Your task to perform on an android device: Search for "acer predator" on costco, select the first entry, add it to the cart, then select checkout. Image 0: 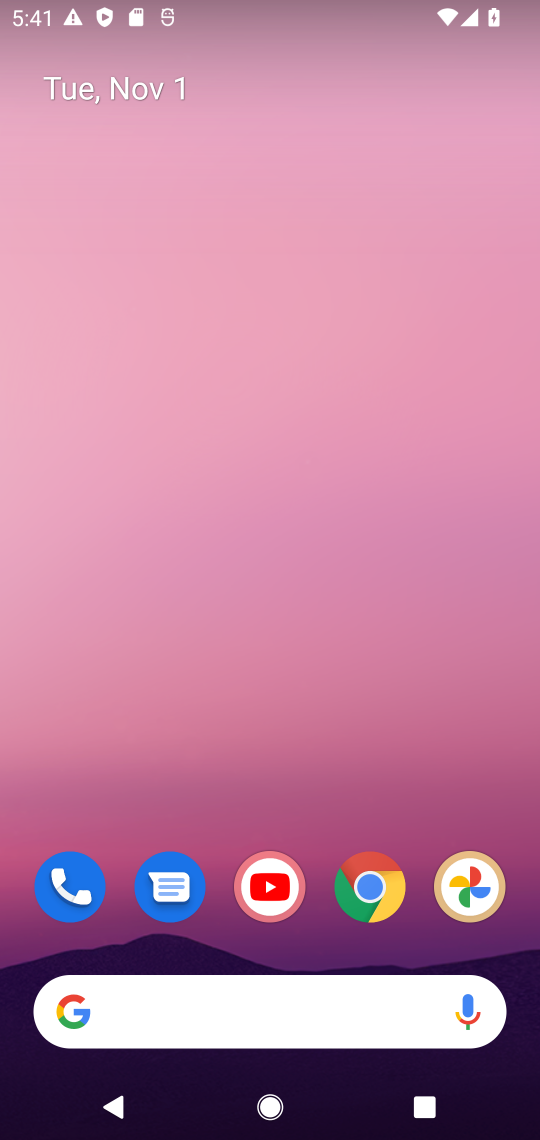
Step 0: press home button
Your task to perform on an android device: Search for "acer predator" on costco, select the first entry, add it to the cart, then select checkout. Image 1: 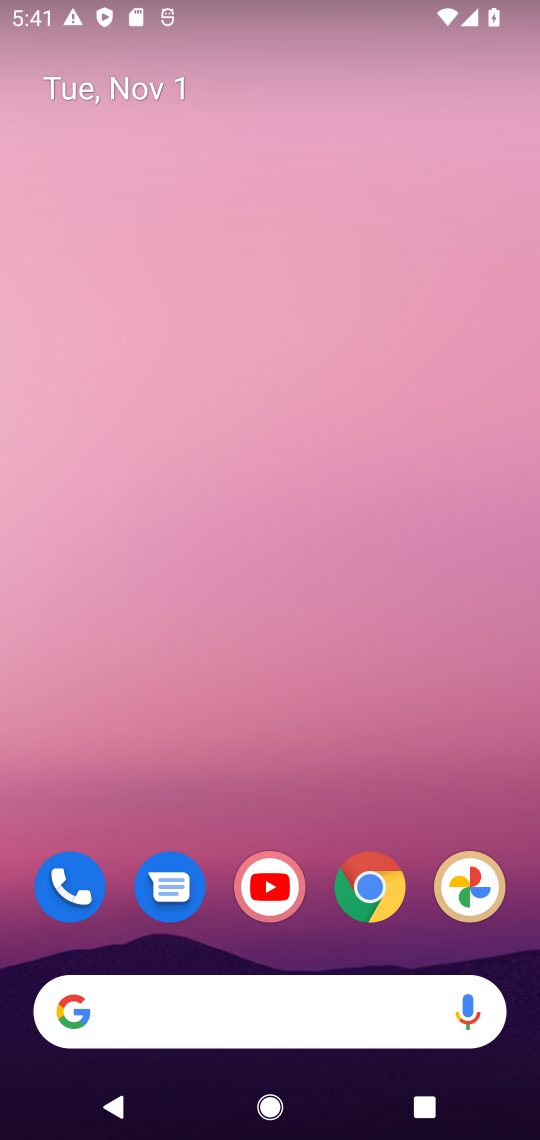
Step 1: drag from (320, 812) to (332, 31)
Your task to perform on an android device: Search for "acer predator" on costco, select the first entry, add it to the cart, then select checkout. Image 2: 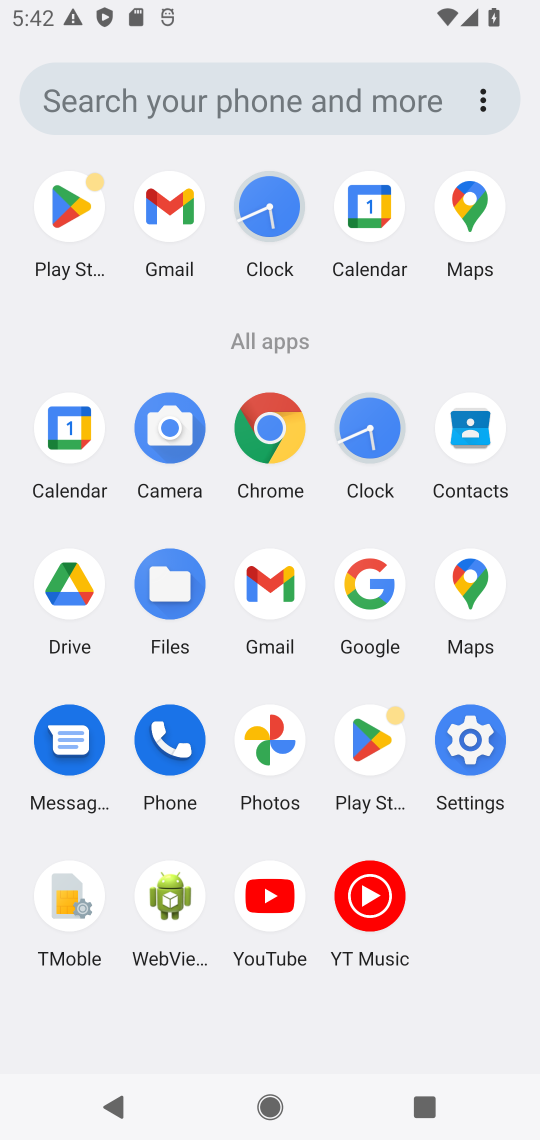
Step 2: click (274, 419)
Your task to perform on an android device: Search for "acer predator" on costco, select the first entry, add it to the cart, then select checkout. Image 3: 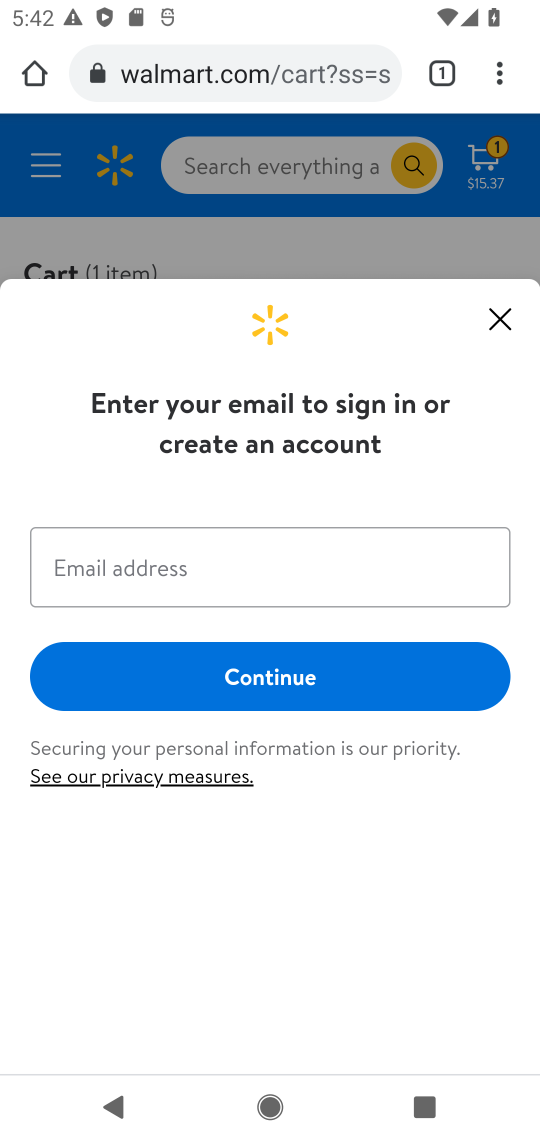
Step 3: click (496, 316)
Your task to perform on an android device: Search for "acer predator" on costco, select the first entry, add it to the cart, then select checkout. Image 4: 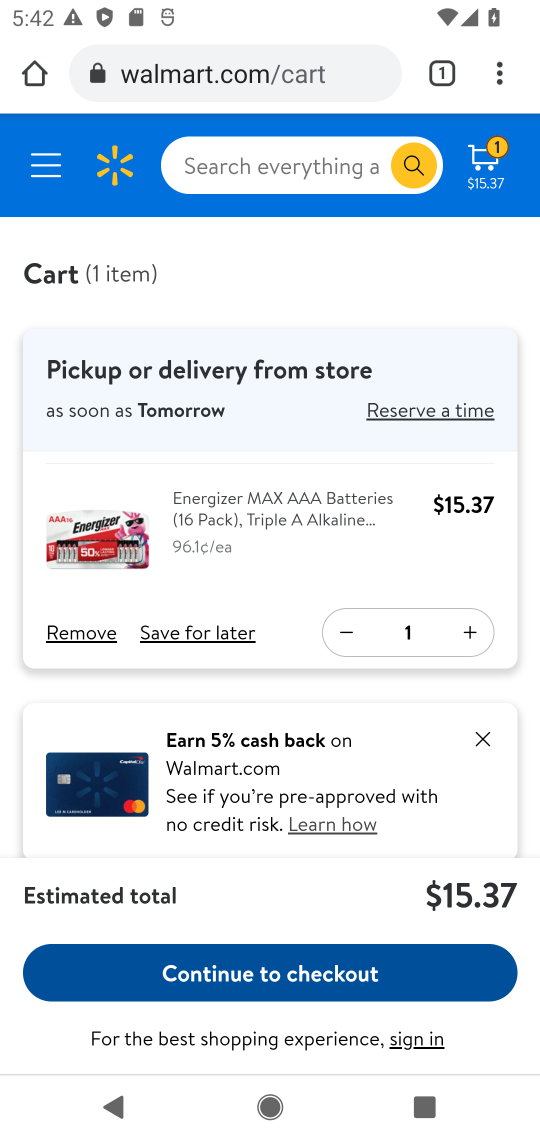
Step 4: click (197, 65)
Your task to perform on an android device: Search for "acer predator" on costco, select the first entry, add it to the cart, then select checkout. Image 5: 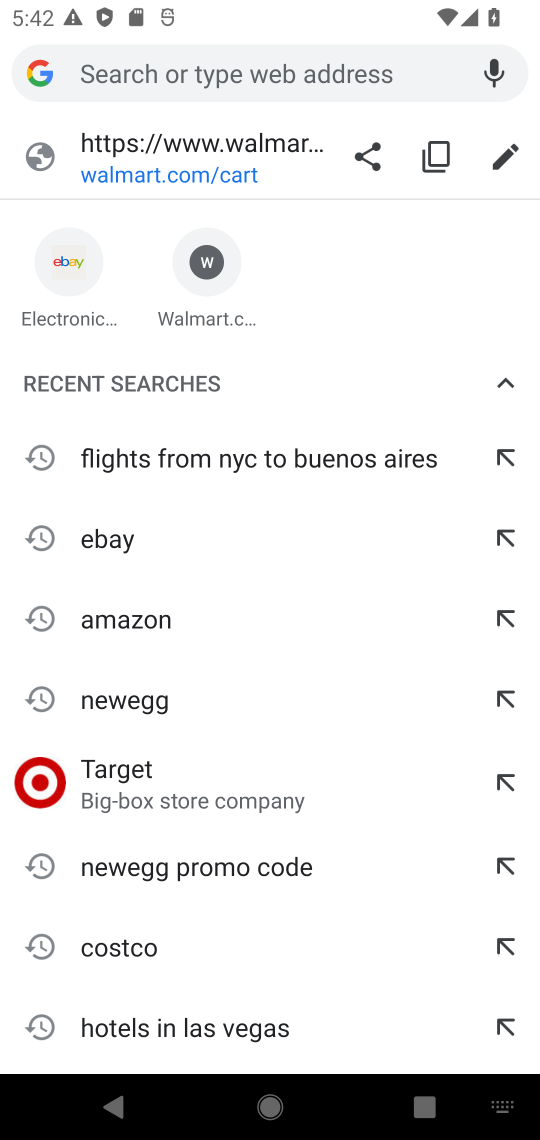
Step 5: type "costco"
Your task to perform on an android device: Search for "acer predator" on costco, select the first entry, add it to the cart, then select checkout. Image 6: 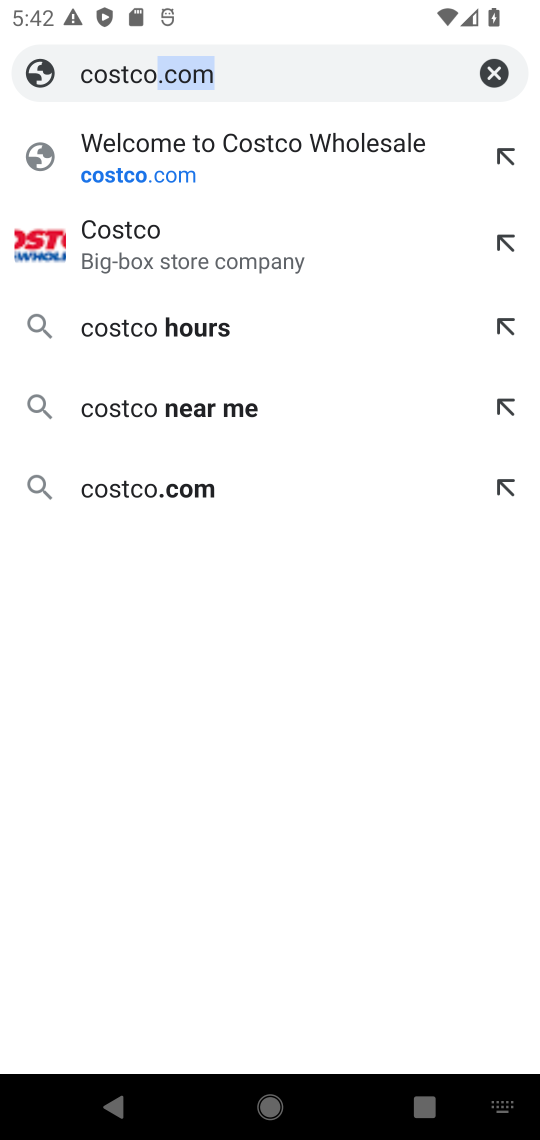
Step 6: click (217, 155)
Your task to perform on an android device: Search for "acer predator" on costco, select the first entry, add it to the cart, then select checkout. Image 7: 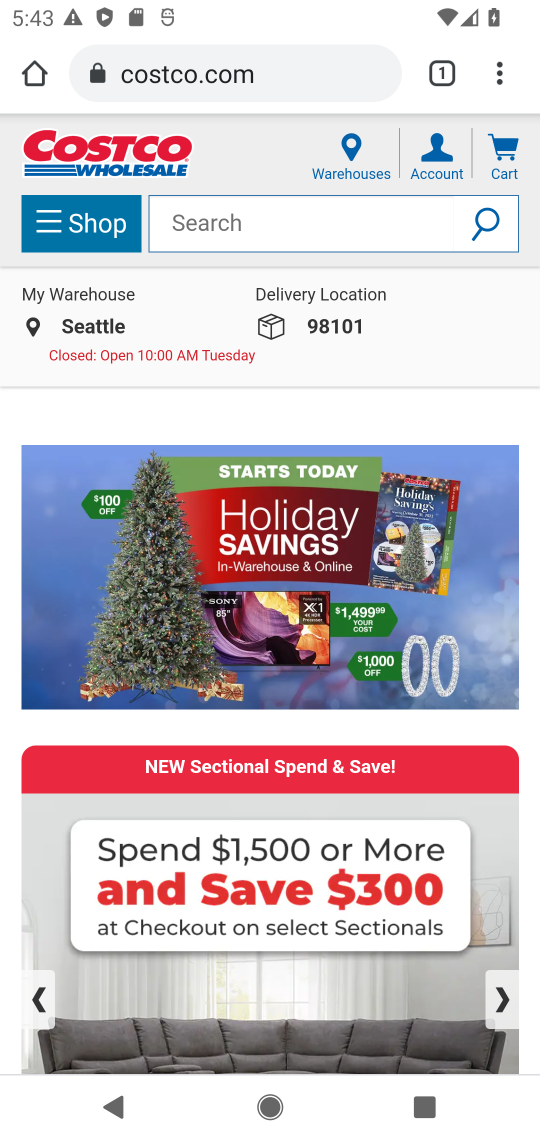
Step 7: click (207, 218)
Your task to perform on an android device: Search for "acer predator" on costco, select the first entry, add it to the cart, then select checkout. Image 8: 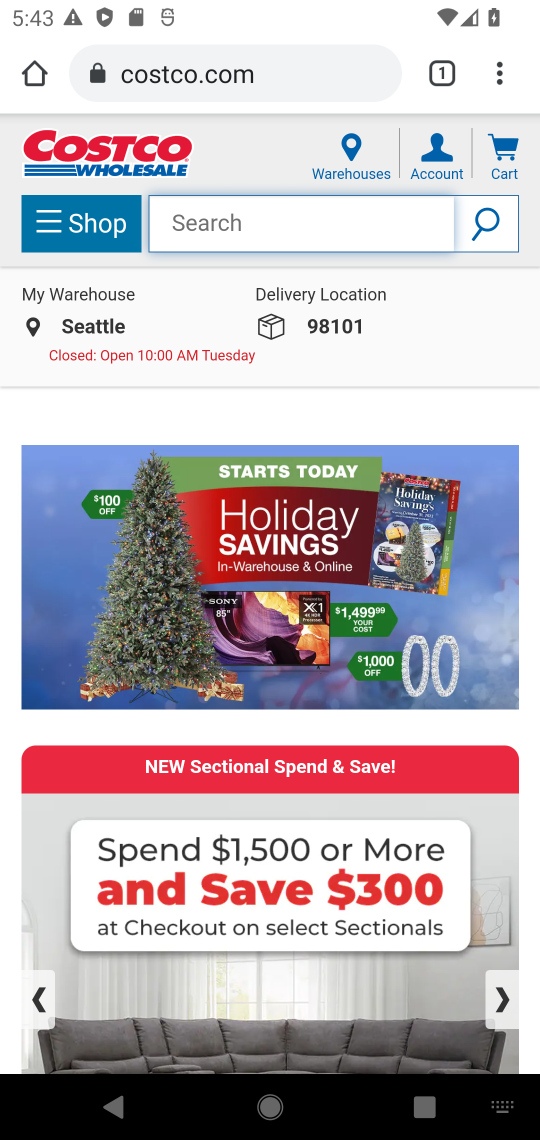
Step 8: type "acer predator"
Your task to perform on an android device: Search for "acer predator" on costco, select the first entry, add it to the cart, then select checkout. Image 9: 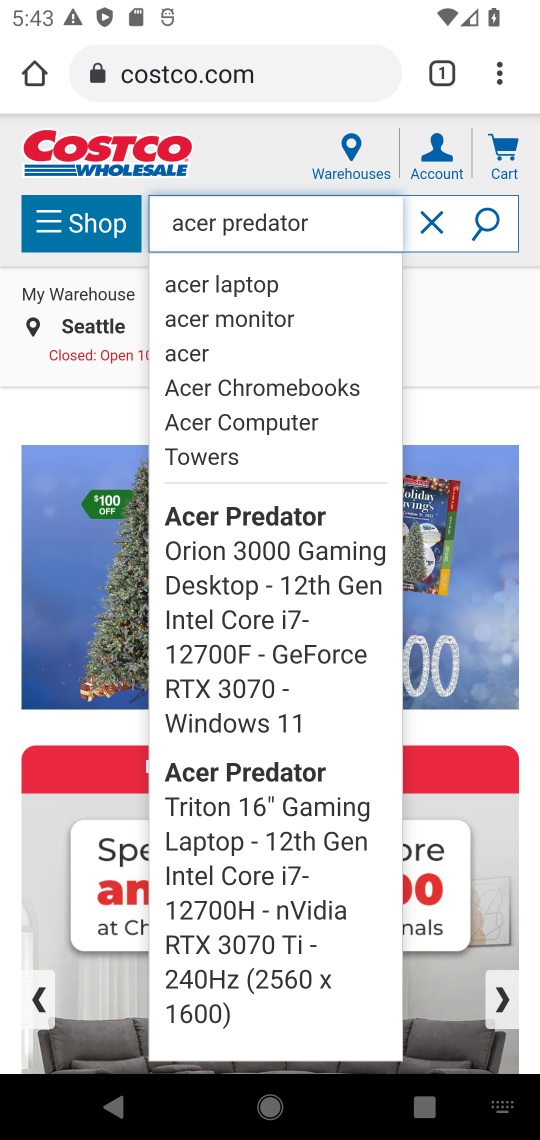
Step 9: click (238, 564)
Your task to perform on an android device: Search for "acer predator" on costco, select the first entry, add it to the cart, then select checkout. Image 10: 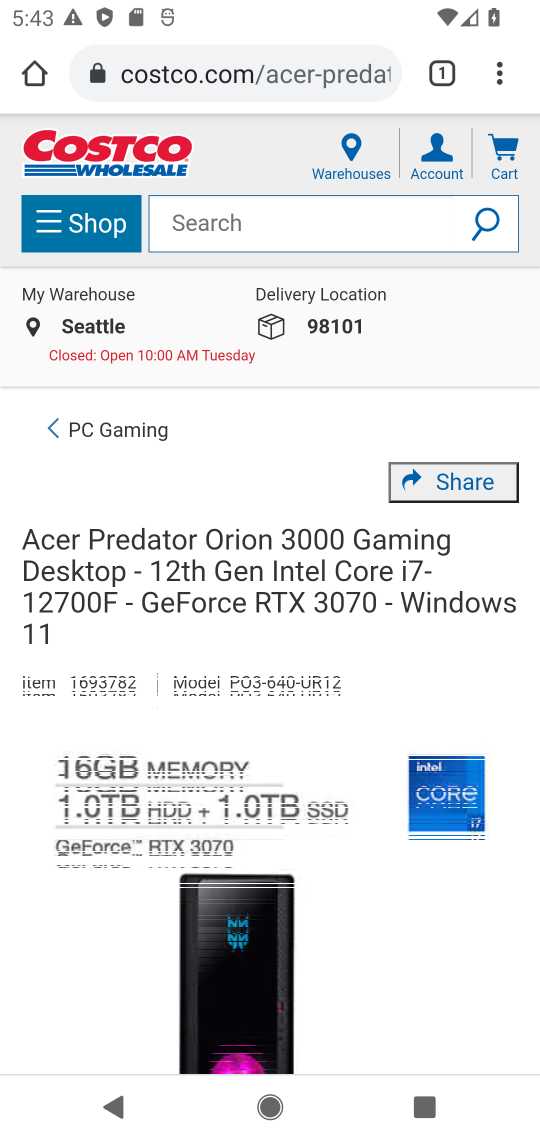
Step 10: drag from (397, 982) to (439, 481)
Your task to perform on an android device: Search for "acer predator" on costco, select the first entry, add it to the cart, then select checkout. Image 11: 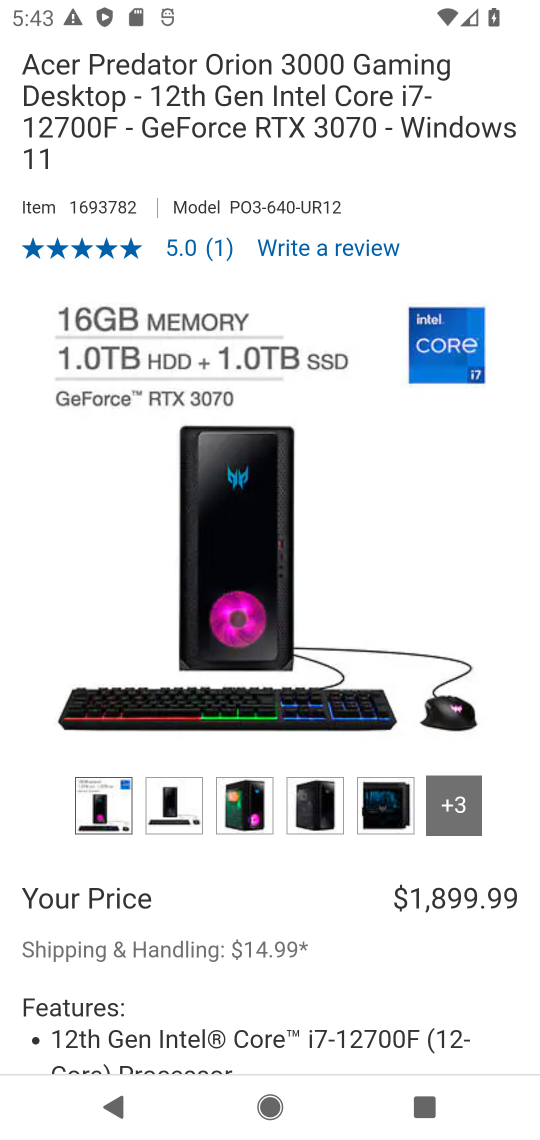
Step 11: drag from (327, 1003) to (417, 117)
Your task to perform on an android device: Search for "acer predator" on costco, select the first entry, add it to the cart, then select checkout. Image 12: 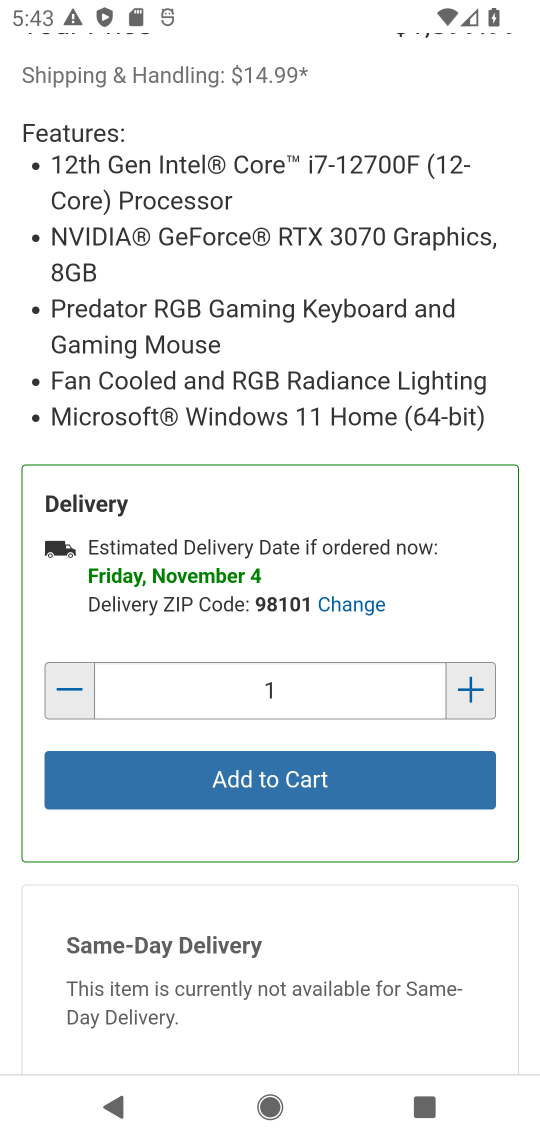
Step 12: click (278, 781)
Your task to perform on an android device: Search for "acer predator" on costco, select the first entry, add it to the cart, then select checkout. Image 13: 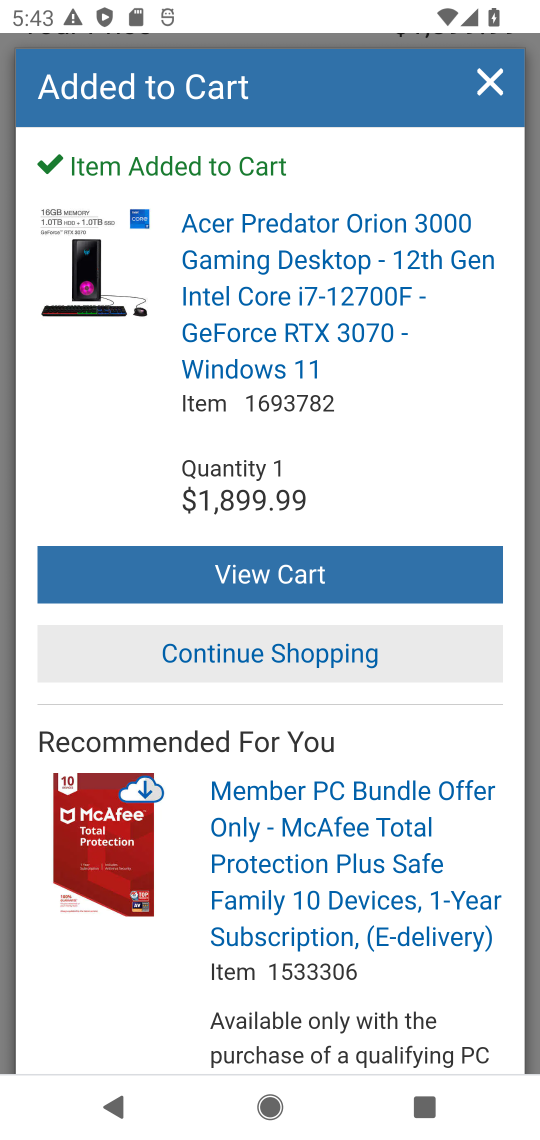
Step 13: click (269, 567)
Your task to perform on an android device: Search for "acer predator" on costco, select the first entry, add it to the cart, then select checkout. Image 14: 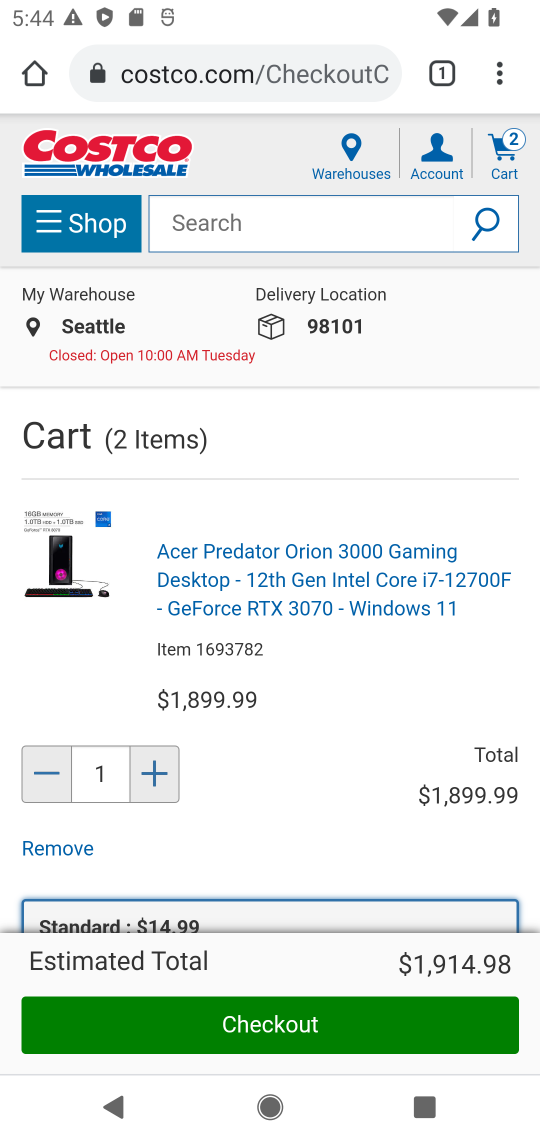
Step 14: click (294, 1026)
Your task to perform on an android device: Search for "acer predator" on costco, select the first entry, add it to the cart, then select checkout. Image 15: 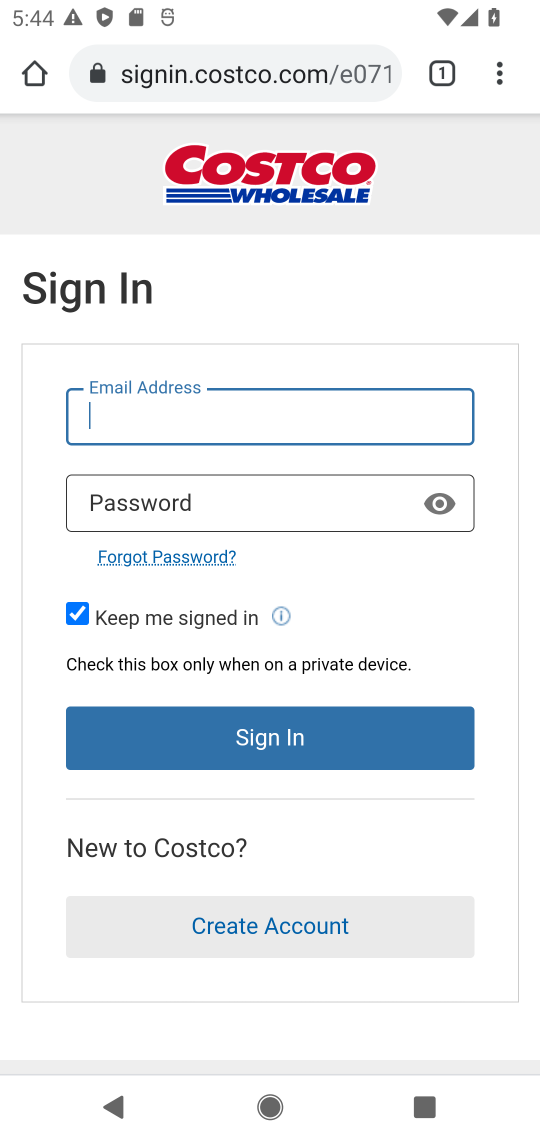
Step 15: task complete